Your task to perform on an android device: Go to Amazon Image 0: 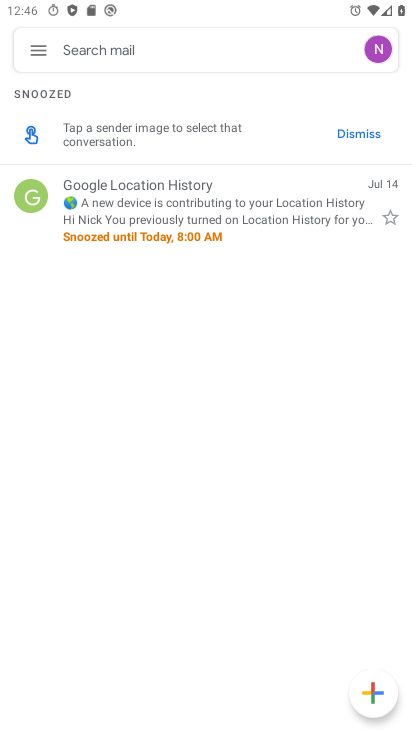
Step 0: press home button
Your task to perform on an android device: Go to Amazon Image 1: 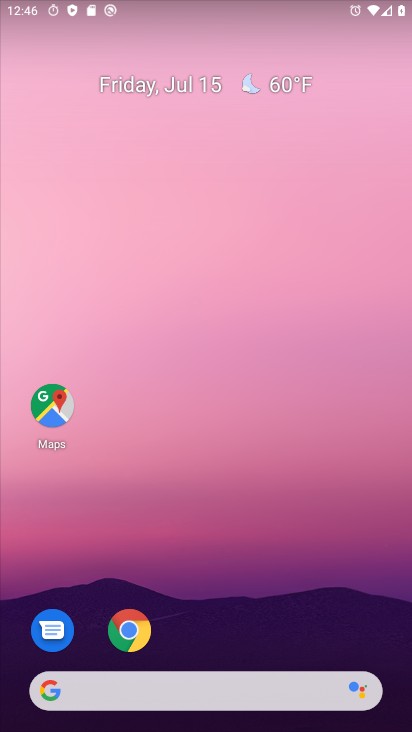
Step 1: click (126, 645)
Your task to perform on an android device: Go to Amazon Image 2: 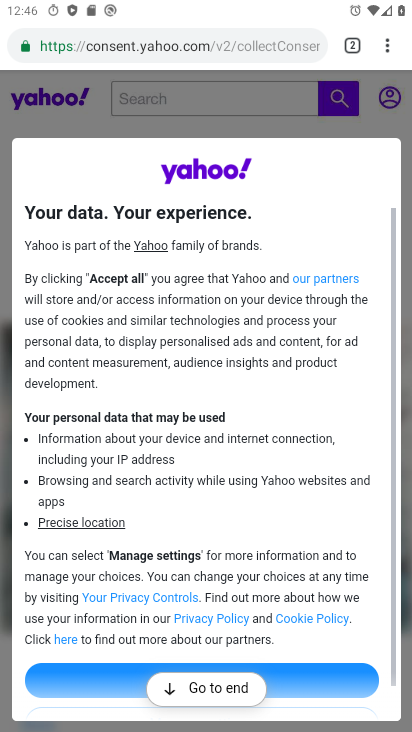
Step 2: click (228, 48)
Your task to perform on an android device: Go to Amazon Image 3: 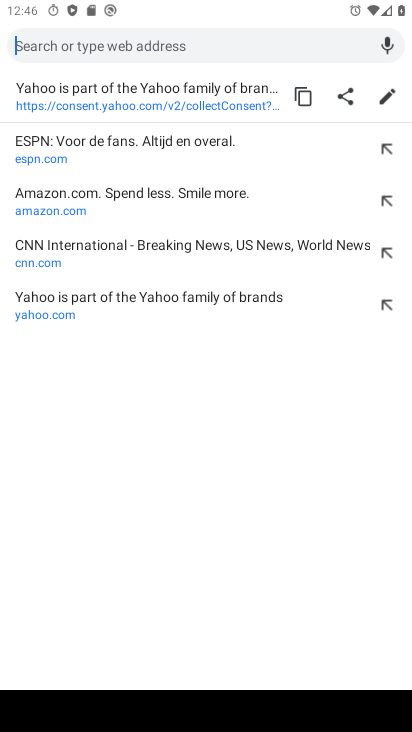
Step 3: click (123, 197)
Your task to perform on an android device: Go to Amazon Image 4: 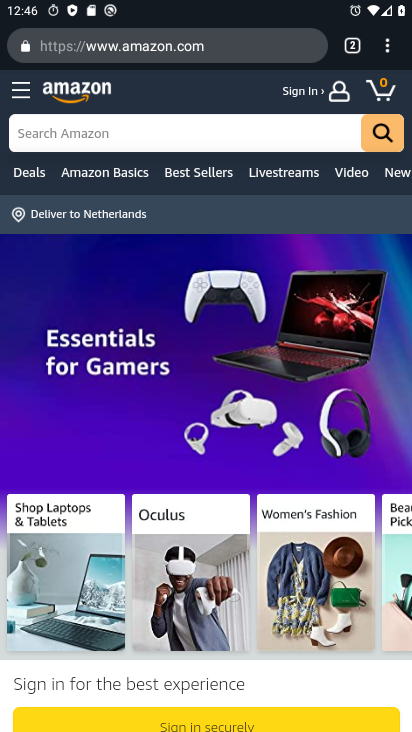
Step 4: task complete